Your task to perform on an android device: Open location settings Image 0: 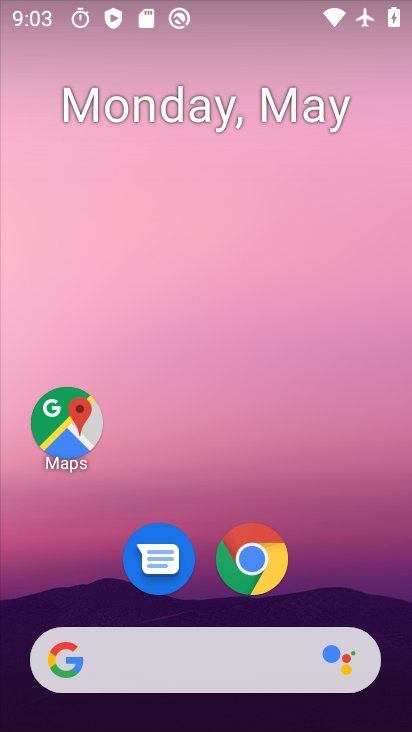
Step 0: drag from (320, 591) to (325, 137)
Your task to perform on an android device: Open location settings Image 1: 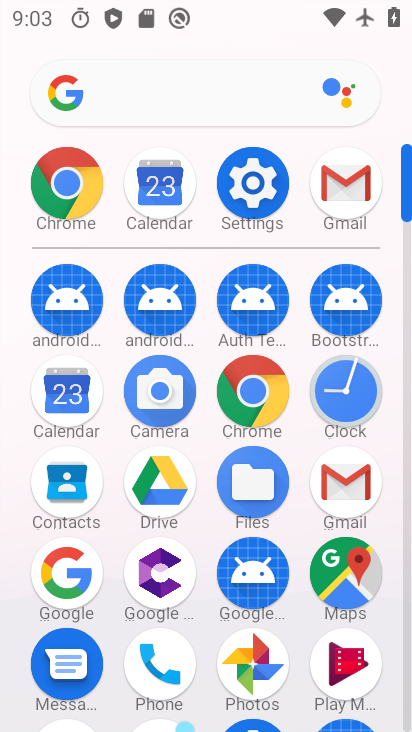
Step 1: click (239, 183)
Your task to perform on an android device: Open location settings Image 2: 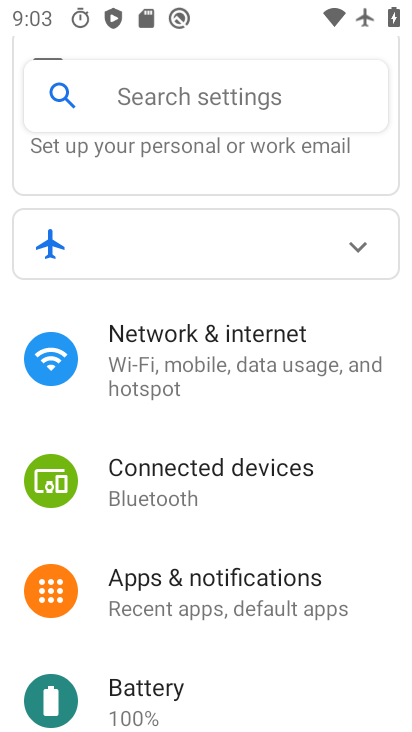
Step 2: drag from (198, 607) to (209, 240)
Your task to perform on an android device: Open location settings Image 3: 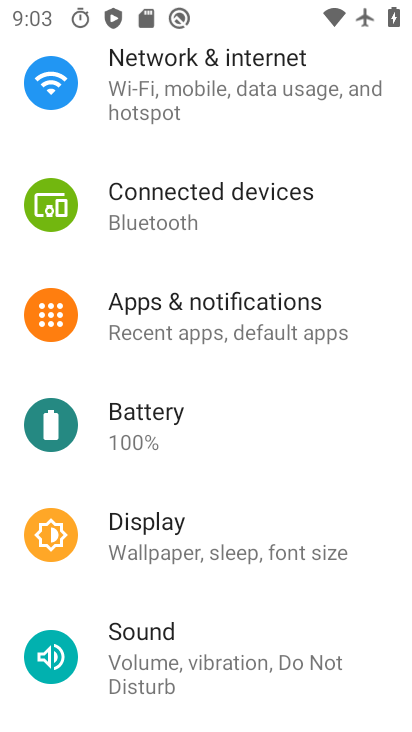
Step 3: drag from (237, 566) to (260, 254)
Your task to perform on an android device: Open location settings Image 4: 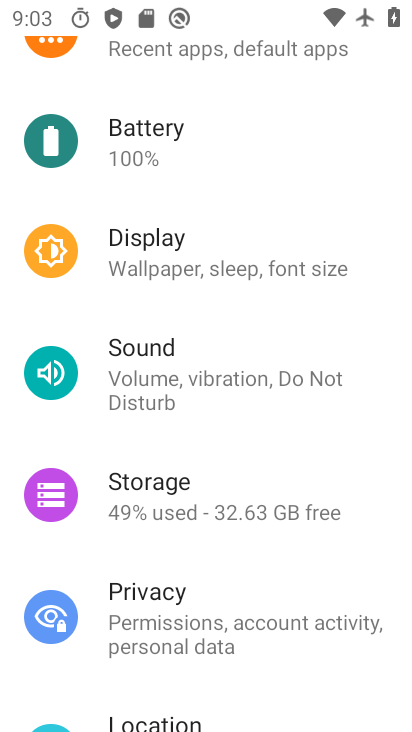
Step 4: drag from (200, 554) to (224, 336)
Your task to perform on an android device: Open location settings Image 5: 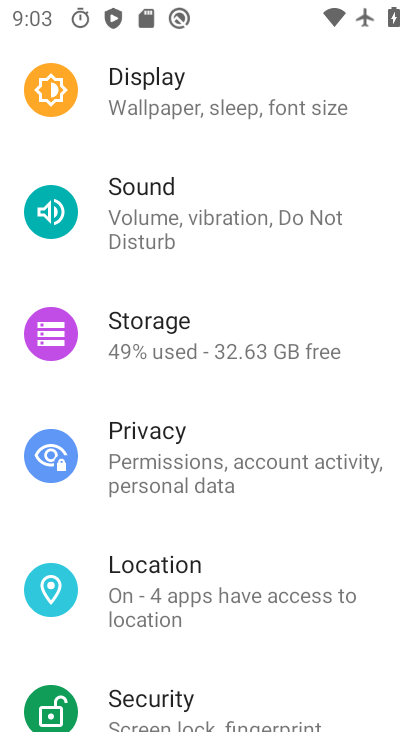
Step 5: click (248, 589)
Your task to perform on an android device: Open location settings Image 6: 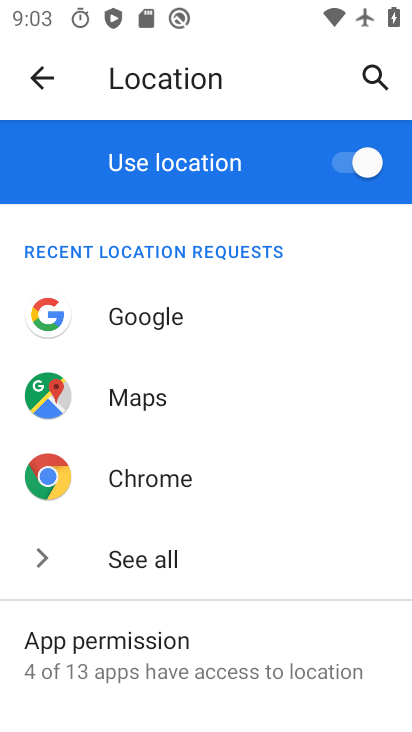
Step 6: task complete